Your task to perform on an android device: Open the Play Movies app and select the watchlist tab. Image 0: 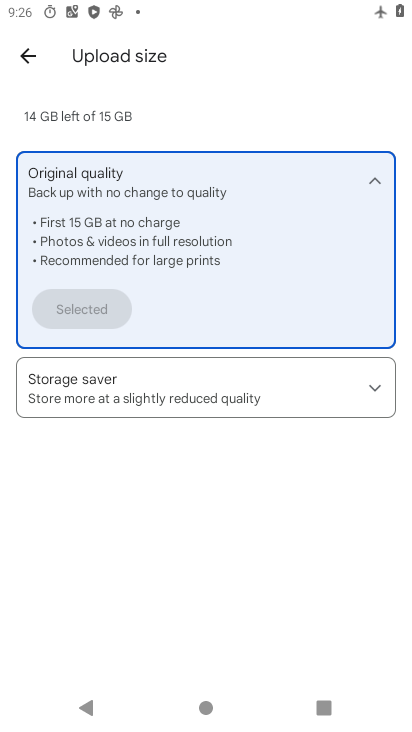
Step 0: press home button
Your task to perform on an android device: Open the Play Movies app and select the watchlist tab. Image 1: 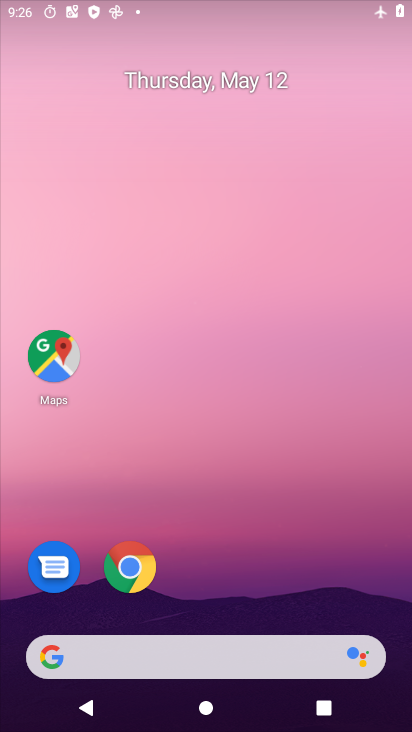
Step 1: drag from (286, 575) to (280, 170)
Your task to perform on an android device: Open the Play Movies app and select the watchlist tab. Image 2: 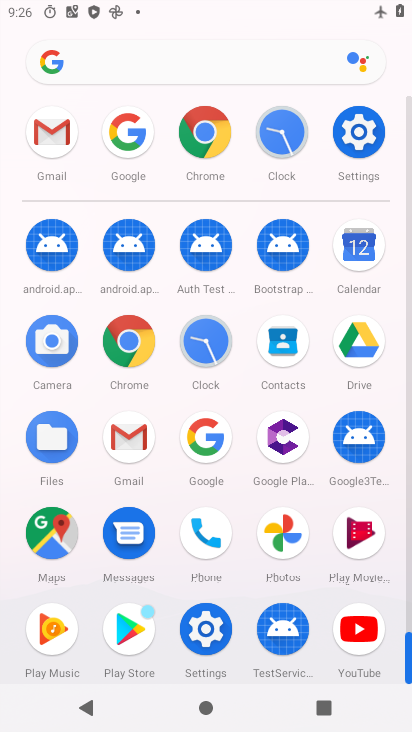
Step 2: click (364, 544)
Your task to perform on an android device: Open the Play Movies app and select the watchlist tab. Image 3: 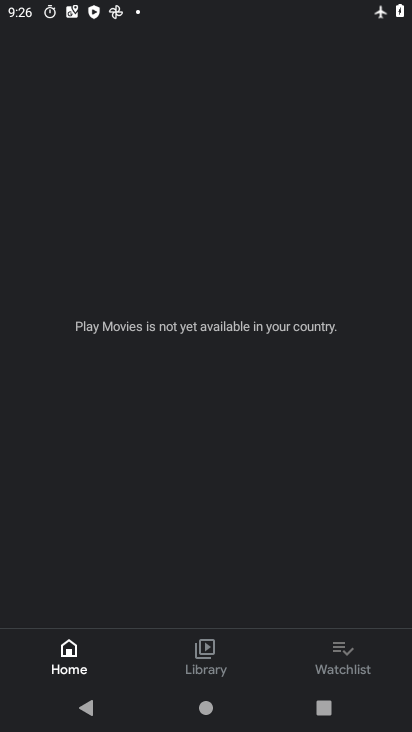
Step 3: click (350, 657)
Your task to perform on an android device: Open the Play Movies app and select the watchlist tab. Image 4: 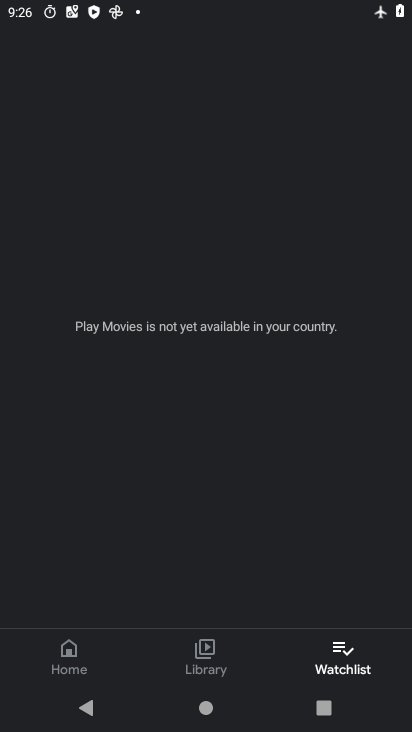
Step 4: task complete